Your task to perform on an android device: clear all cookies in the chrome app Image 0: 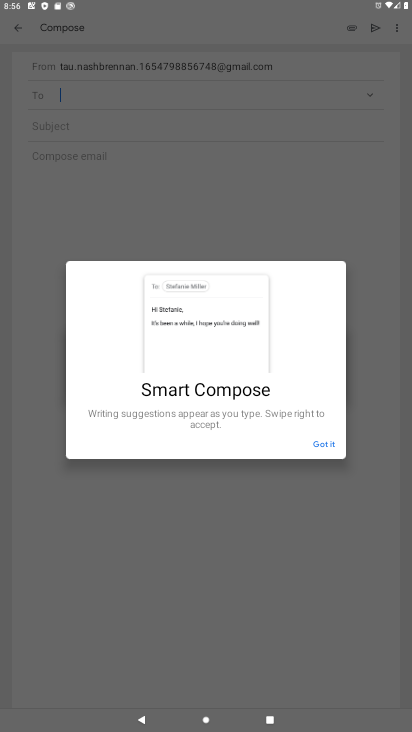
Step 0: press home button
Your task to perform on an android device: clear all cookies in the chrome app Image 1: 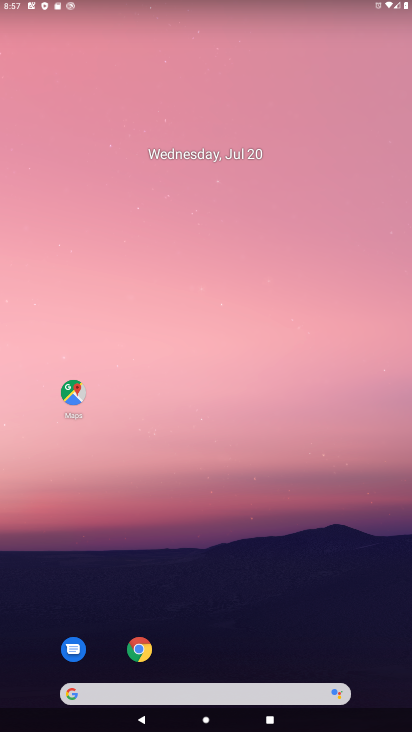
Step 1: drag from (202, 682) to (184, 212)
Your task to perform on an android device: clear all cookies in the chrome app Image 2: 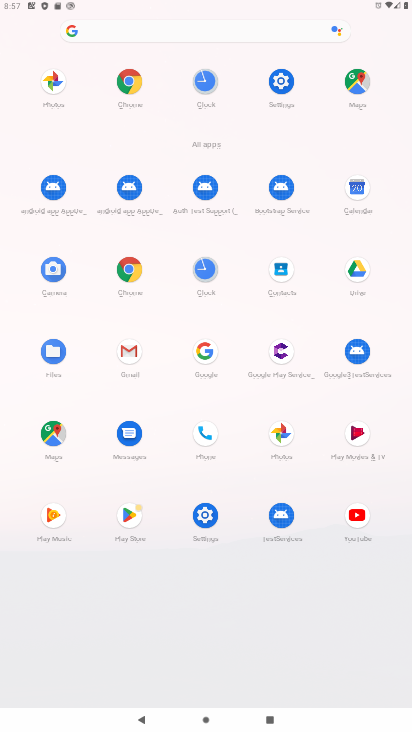
Step 2: click (131, 83)
Your task to perform on an android device: clear all cookies in the chrome app Image 3: 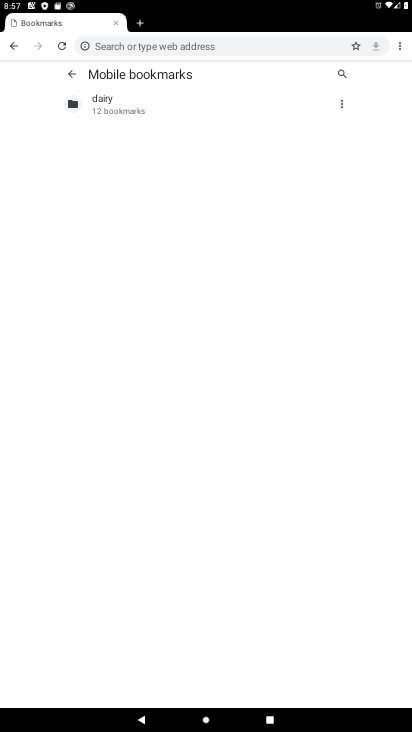
Step 3: click (398, 43)
Your task to perform on an android device: clear all cookies in the chrome app Image 4: 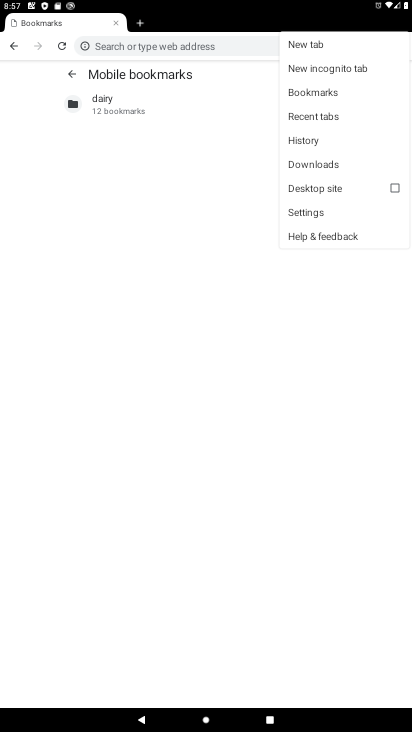
Step 4: click (314, 132)
Your task to perform on an android device: clear all cookies in the chrome app Image 5: 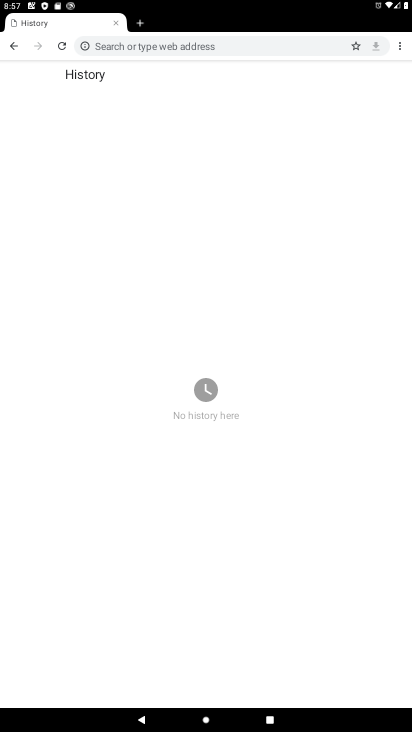
Step 5: task complete